Your task to perform on an android device: Go to location settings Image 0: 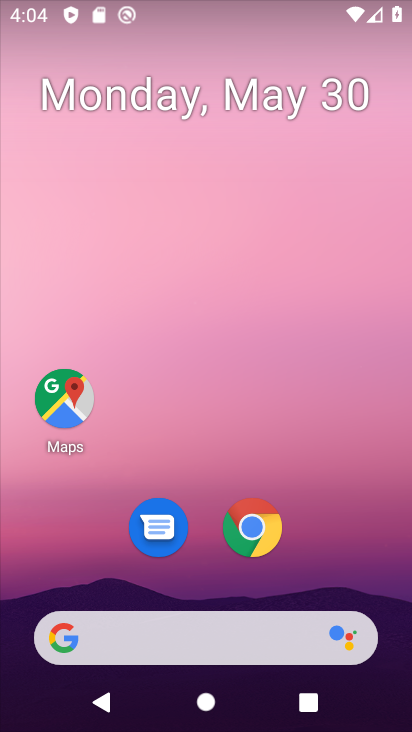
Step 0: drag from (236, 722) to (229, 110)
Your task to perform on an android device: Go to location settings Image 1: 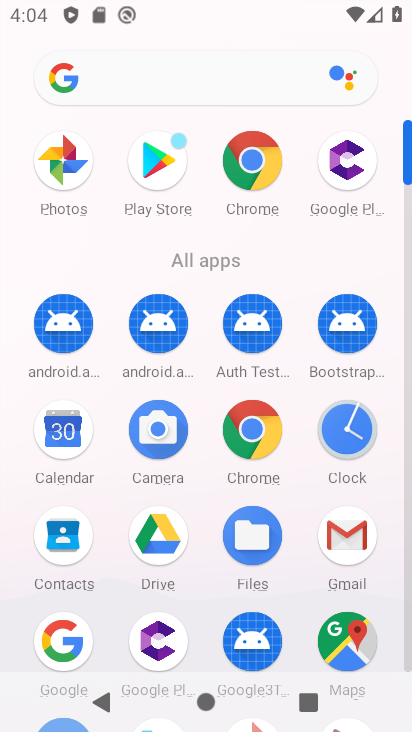
Step 1: drag from (212, 649) to (208, 185)
Your task to perform on an android device: Go to location settings Image 2: 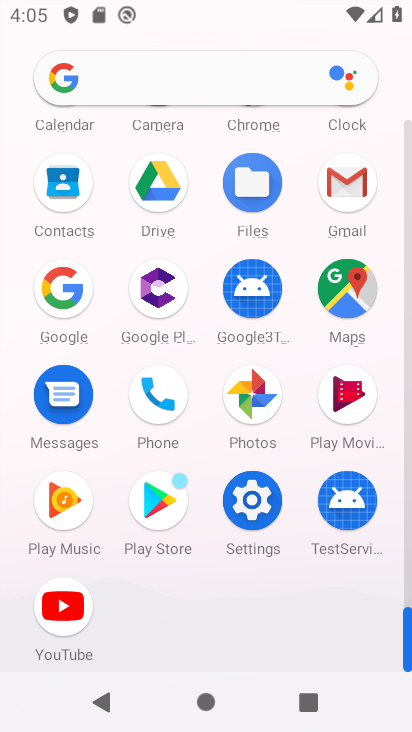
Step 2: click (266, 490)
Your task to perform on an android device: Go to location settings Image 3: 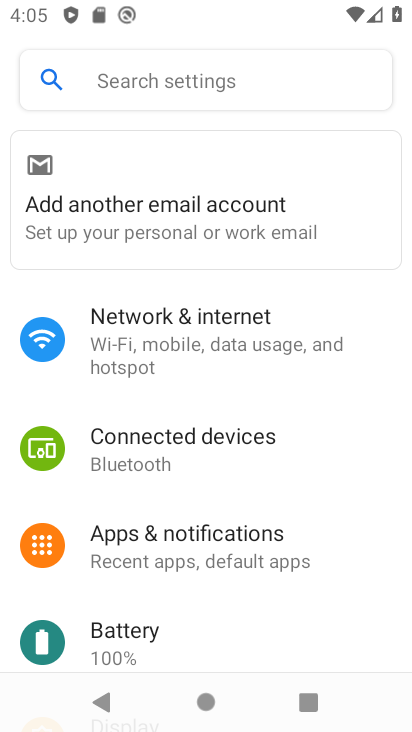
Step 3: drag from (206, 627) to (198, 544)
Your task to perform on an android device: Go to location settings Image 4: 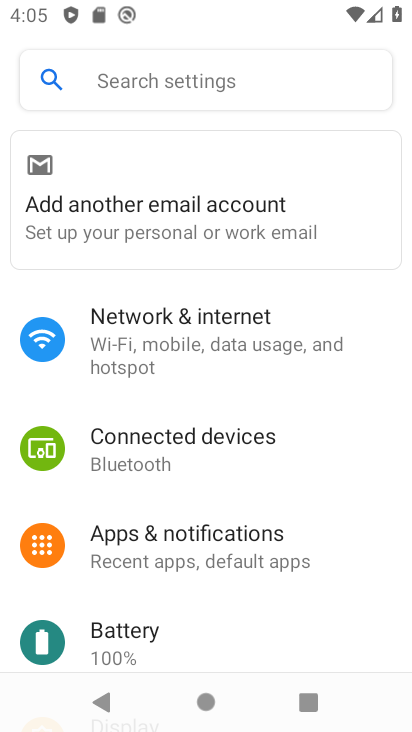
Step 4: drag from (197, 468) to (198, 243)
Your task to perform on an android device: Go to location settings Image 5: 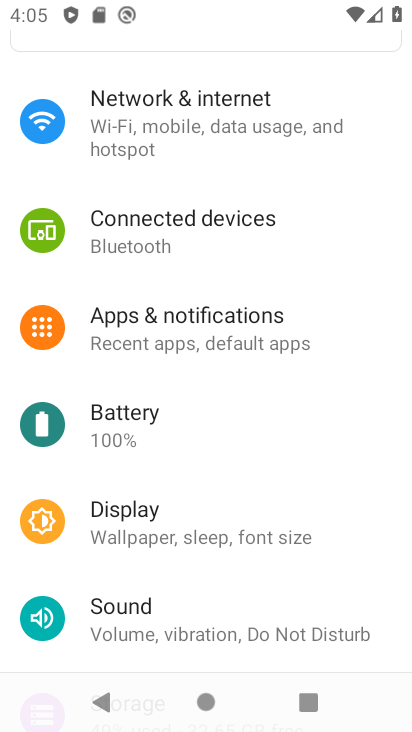
Step 5: drag from (207, 542) to (209, 184)
Your task to perform on an android device: Go to location settings Image 6: 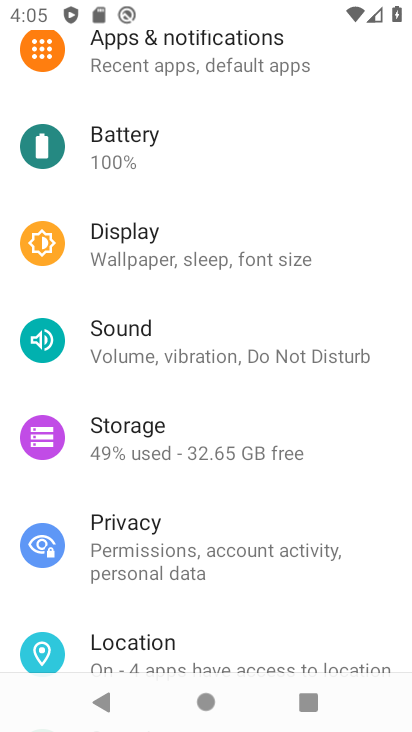
Step 6: click (130, 634)
Your task to perform on an android device: Go to location settings Image 7: 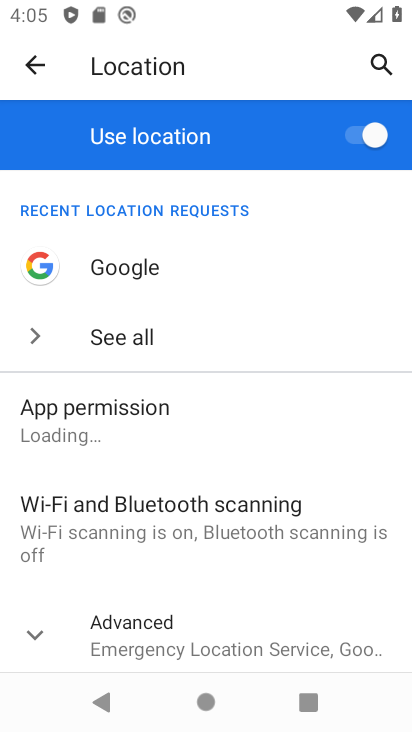
Step 7: task complete